Your task to perform on an android device: Open CNN.com Image 0: 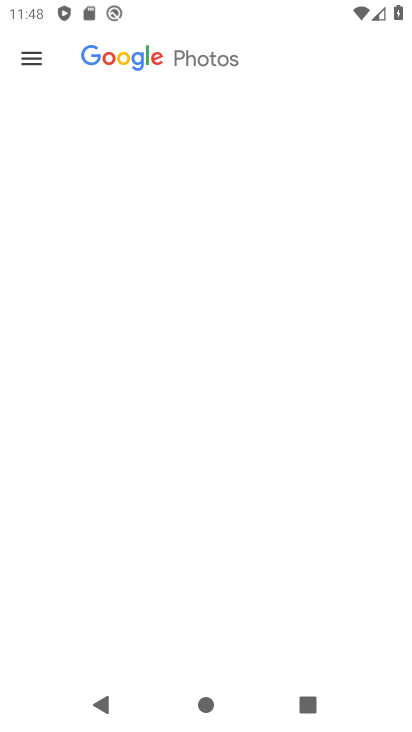
Step 0: press home button
Your task to perform on an android device: Open CNN.com Image 1: 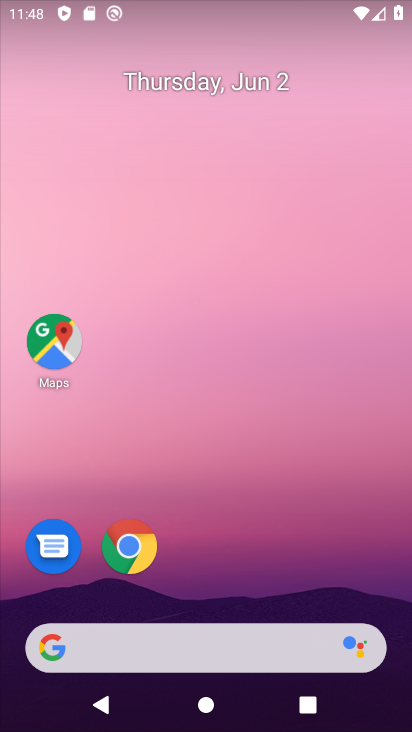
Step 1: click (126, 546)
Your task to perform on an android device: Open CNN.com Image 2: 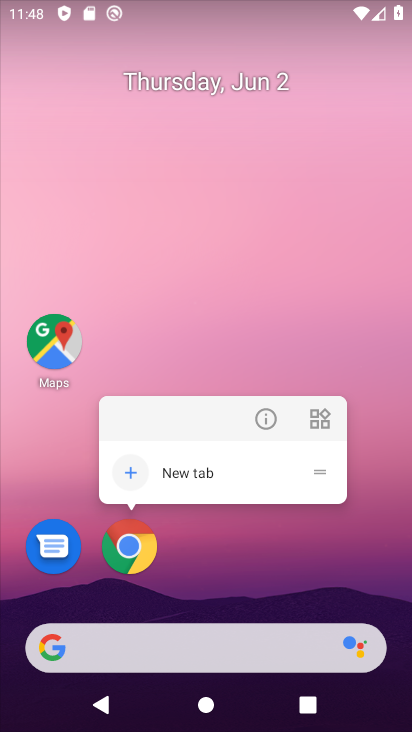
Step 2: click (116, 547)
Your task to perform on an android device: Open CNN.com Image 3: 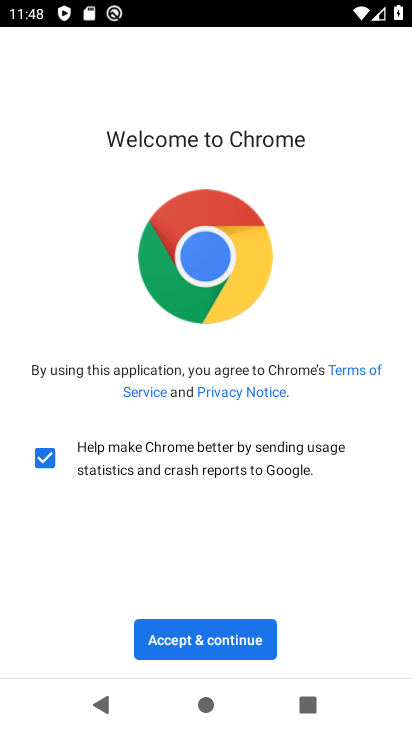
Step 3: click (243, 637)
Your task to perform on an android device: Open CNN.com Image 4: 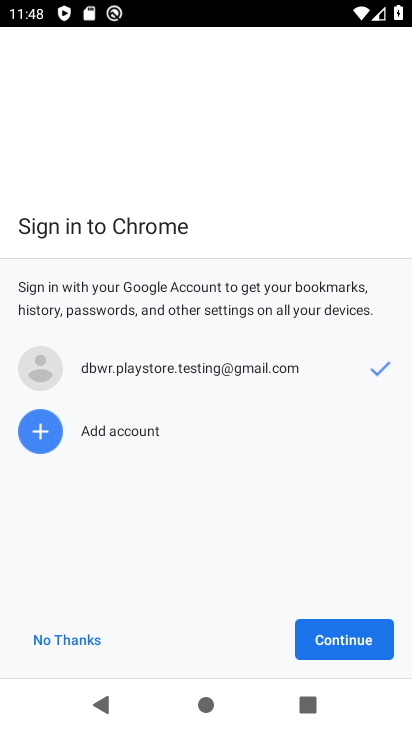
Step 4: click (326, 651)
Your task to perform on an android device: Open CNN.com Image 5: 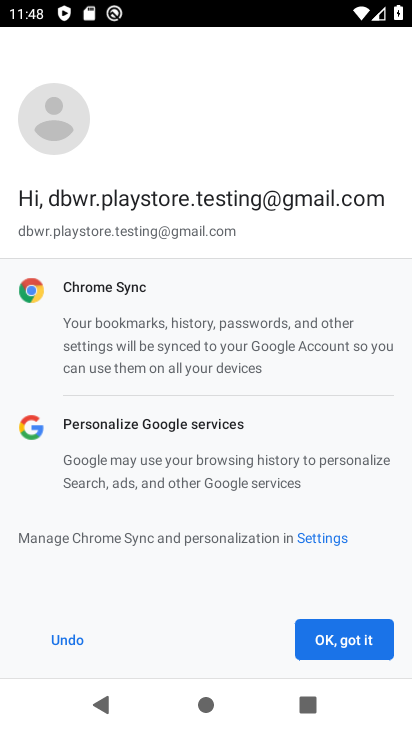
Step 5: click (320, 633)
Your task to perform on an android device: Open CNN.com Image 6: 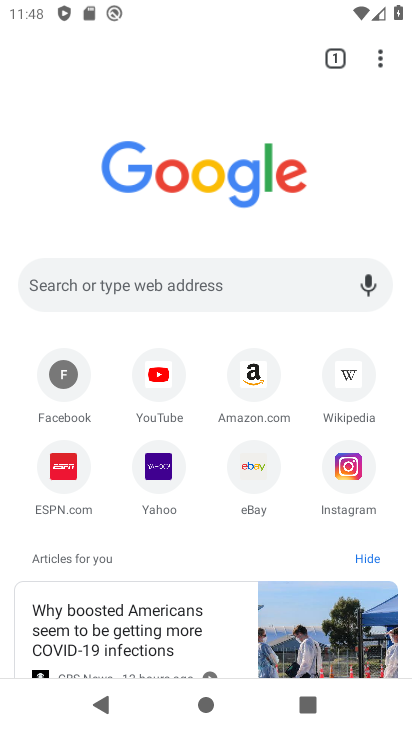
Step 6: click (207, 276)
Your task to perform on an android device: Open CNN.com Image 7: 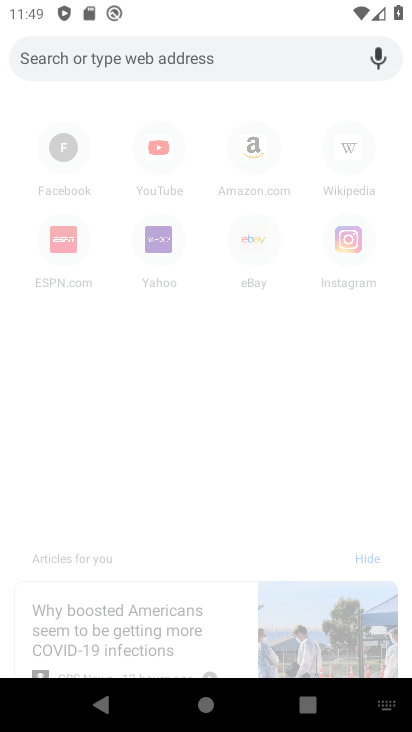
Step 7: type "cnn"
Your task to perform on an android device: Open CNN.com Image 8: 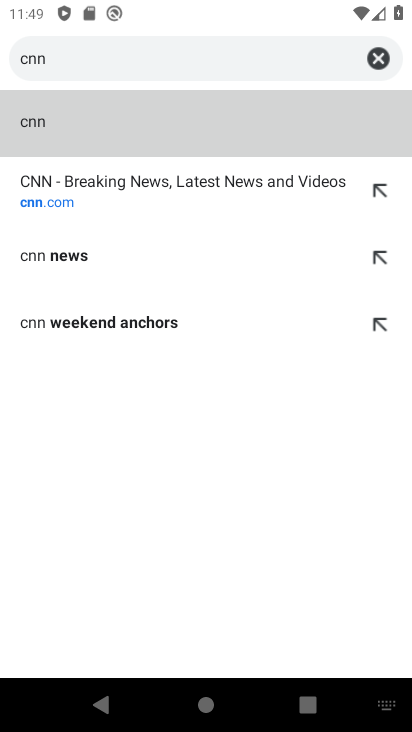
Step 8: click (104, 195)
Your task to perform on an android device: Open CNN.com Image 9: 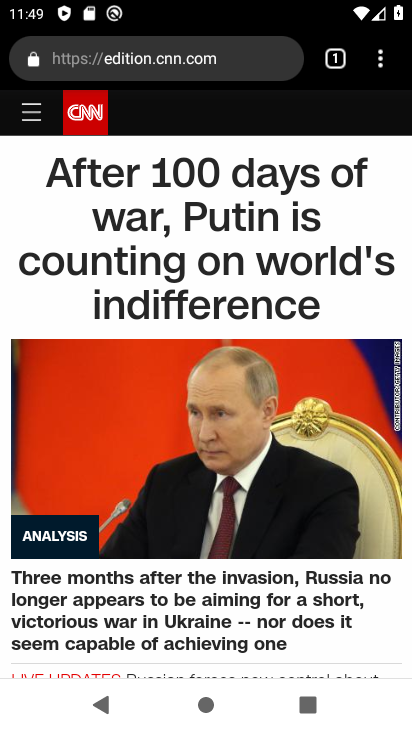
Step 9: task complete